Your task to perform on an android device: install app "Upside-Cash back on gas & food" Image 0: 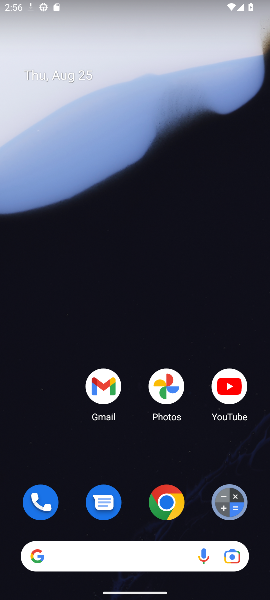
Step 0: drag from (123, 531) to (128, 85)
Your task to perform on an android device: install app "Upside-Cash back on gas & food" Image 1: 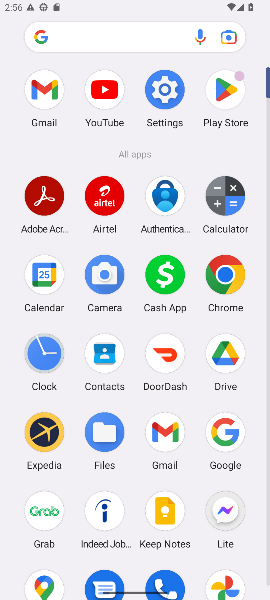
Step 1: click (232, 97)
Your task to perform on an android device: install app "Upside-Cash back on gas & food" Image 2: 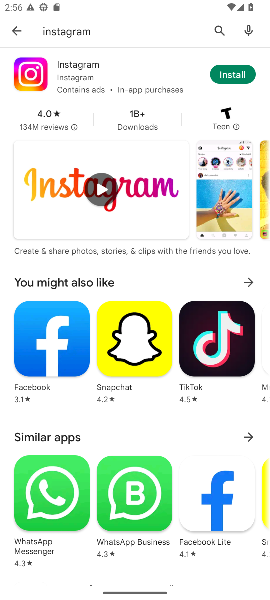
Step 2: click (221, 38)
Your task to perform on an android device: install app "Upside-Cash back on gas & food" Image 3: 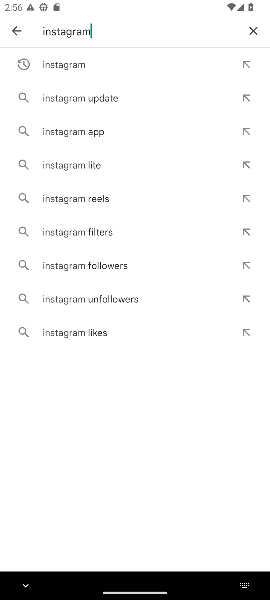
Step 3: click (250, 28)
Your task to perform on an android device: install app "Upside-Cash back on gas & food" Image 4: 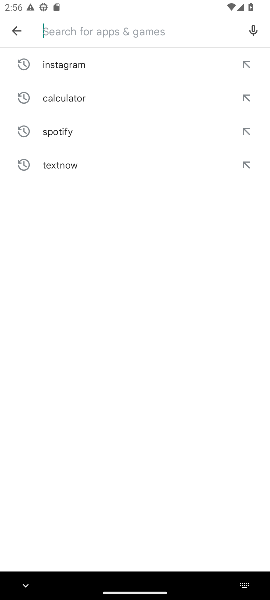
Step 4: type "upside"
Your task to perform on an android device: install app "Upside-Cash back on gas & food" Image 5: 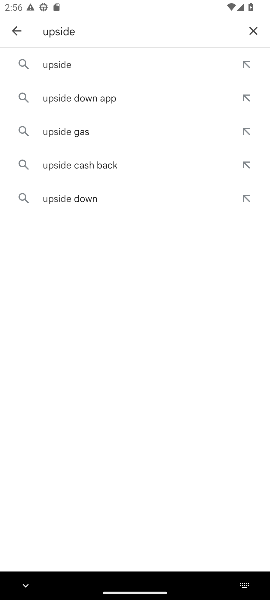
Step 5: click (143, 68)
Your task to perform on an android device: install app "Upside-Cash back on gas & food" Image 6: 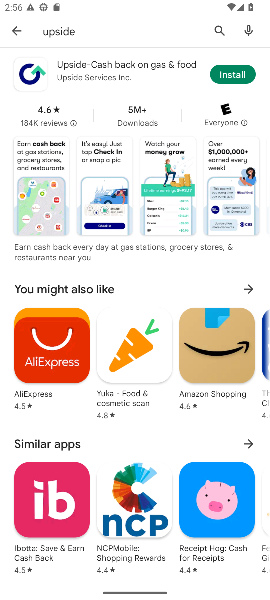
Step 6: click (215, 67)
Your task to perform on an android device: install app "Upside-Cash back on gas & food" Image 7: 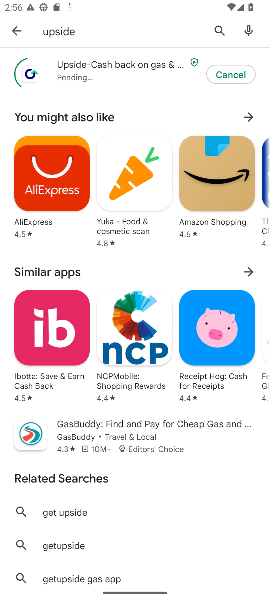
Step 7: task complete